Your task to perform on an android device: create a new album in the google photos Image 0: 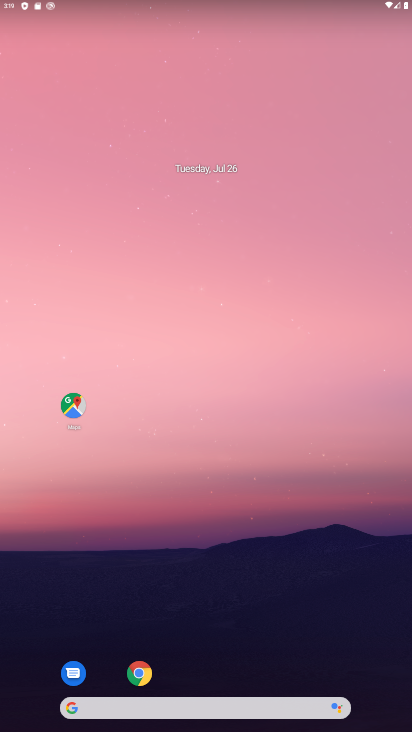
Step 0: press home button
Your task to perform on an android device: create a new album in the google photos Image 1: 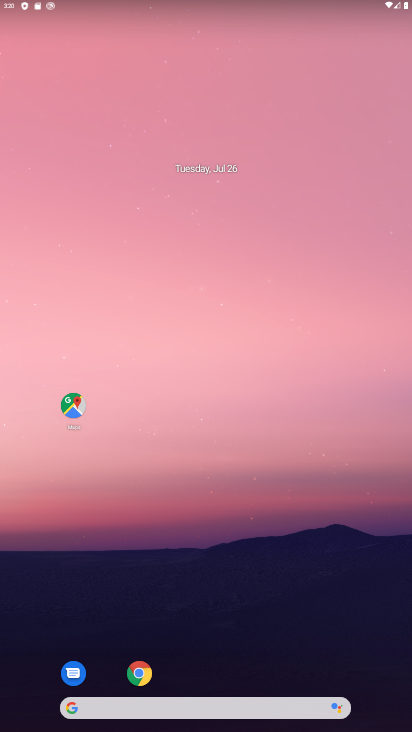
Step 1: drag from (221, 679) to (277, 146)
Your task to perform on an android device: create a new album in the google photos Image 2: 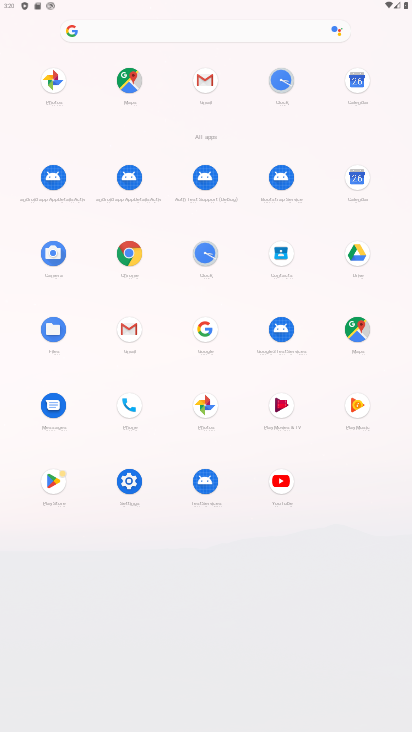
Step 2: click (200, 398)
Your task to perform on an android device: create a new album in the google photos Image 3: 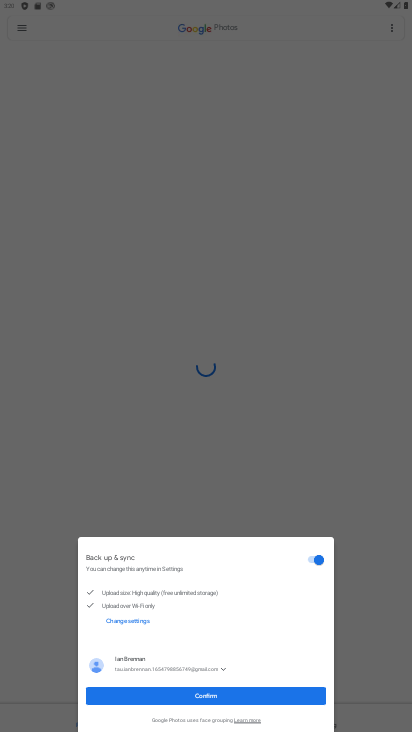
Step 3: click (204, 695)
Your task to perform on an android device: create a new album in the google photos Image 4: 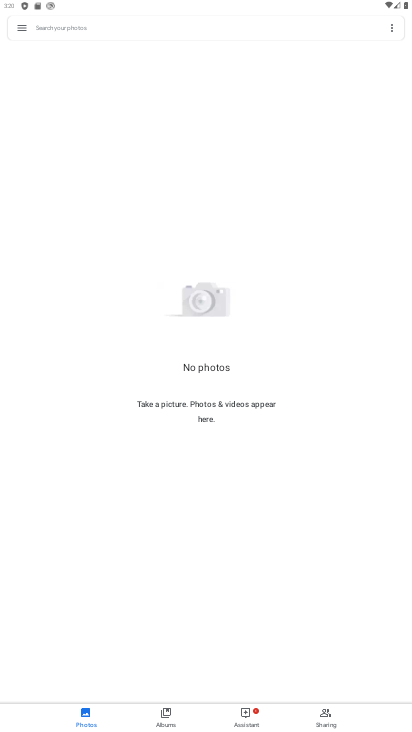
Step 4: click (162, 709)
Your task to perform on an android device: create a new album in the google photos Image 5: 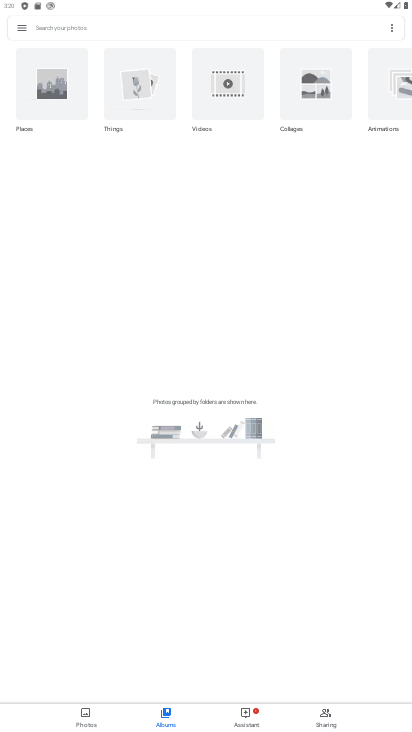
Step 5: click (389, 27)
Your task to perform on an android device: create a new album in the google photos Image 6: 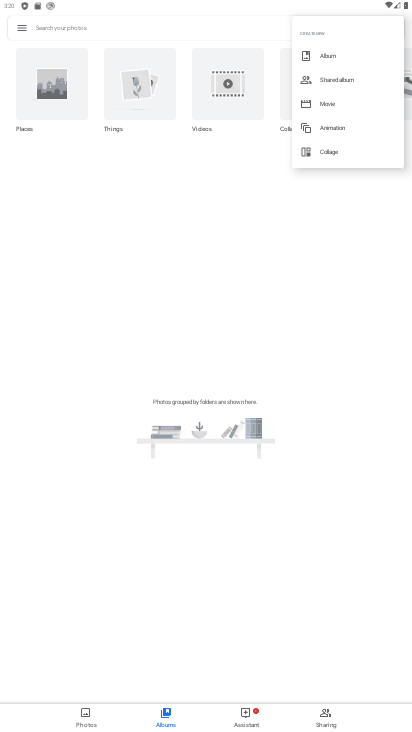
Step 6: click (328, 55)
Your task to perform on an android device: create a new album in the google photos Image 7: 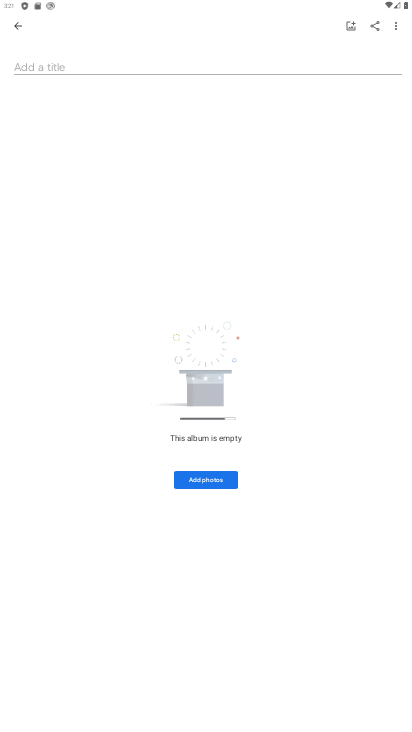
Step 7: click (203, 481)
Your task to perform on an android device: create a new album in the google photos Image 8: 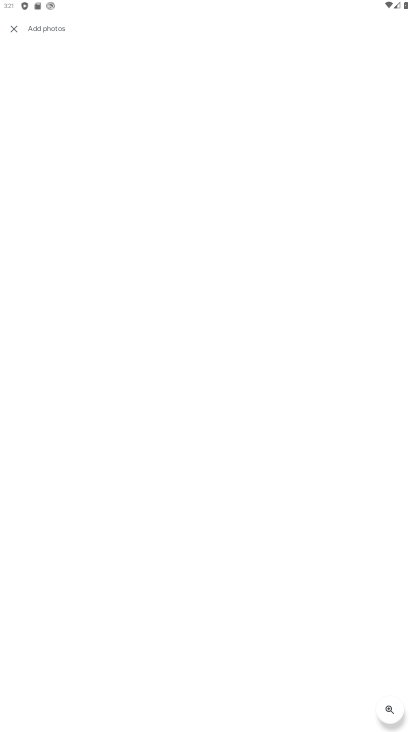
Step 8: task complete